Your task to perform on an android device: toggle pop-ups in chrome Image 0: 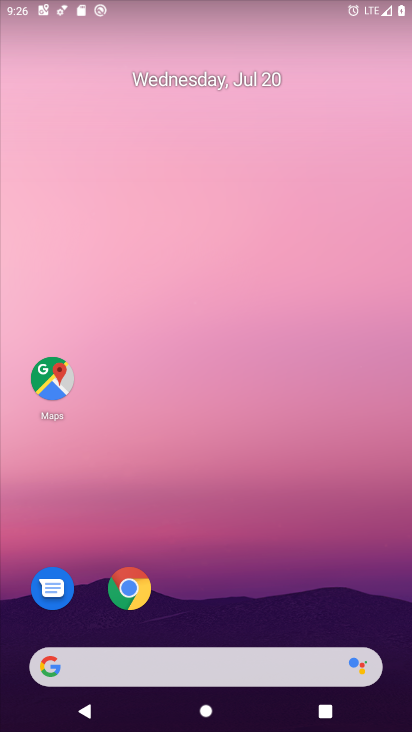
Step 0: click (125, 580)
Your task to perform on an android device: toggle pop-ups in chrome Image 1: 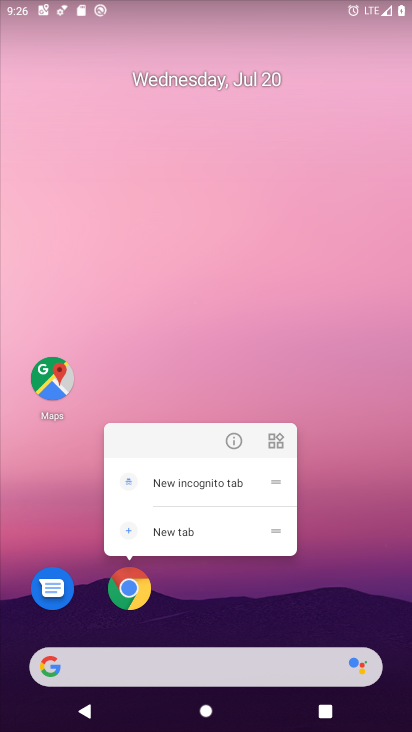
Step 1: click (237, 614)
Your task to perform on an android device: toggle pop-ups in chrome Image 2: 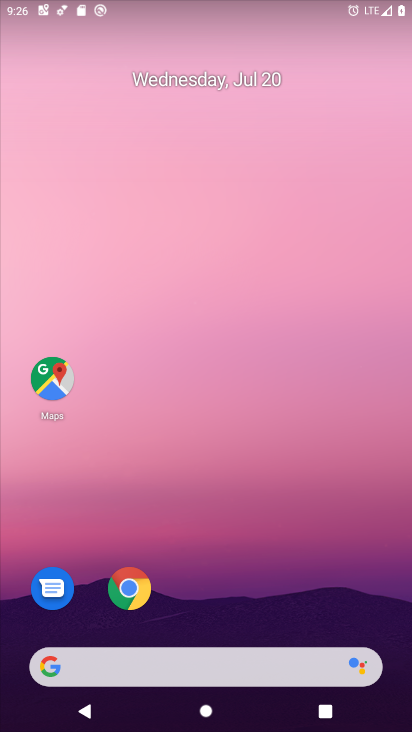
Step 2: click (125, 579)
Your task to perform on an android device: toggle pop-ups in chrome Image 3: 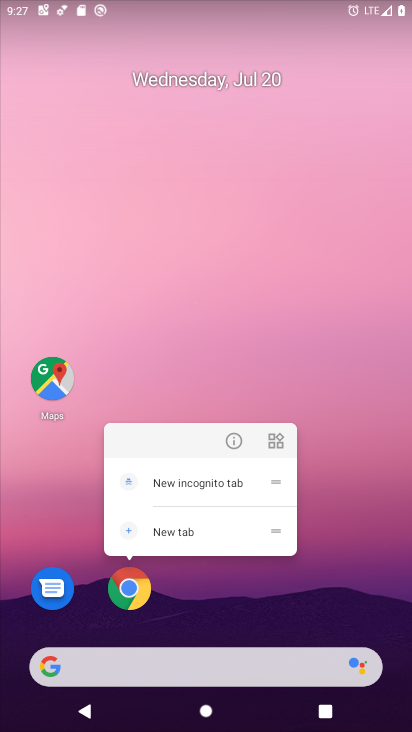
Step 3: click (127, 581)
Your task to perform on an android device: toggle pop-ups in chrome Image 4: 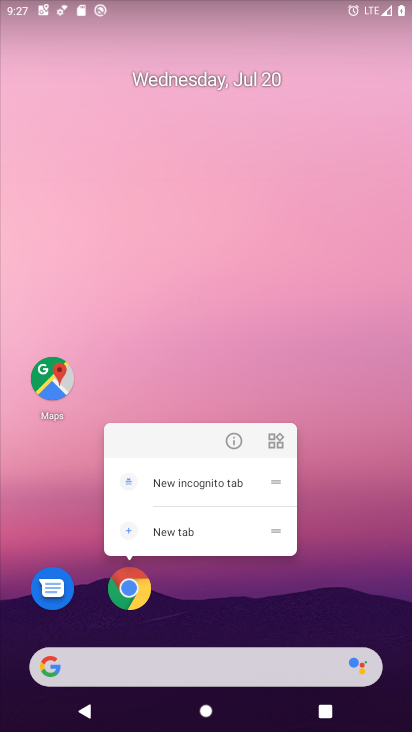
Step 4: click (124, 582)
Your task to perform on an android device: toggle pop-ups in chrome Image 5: 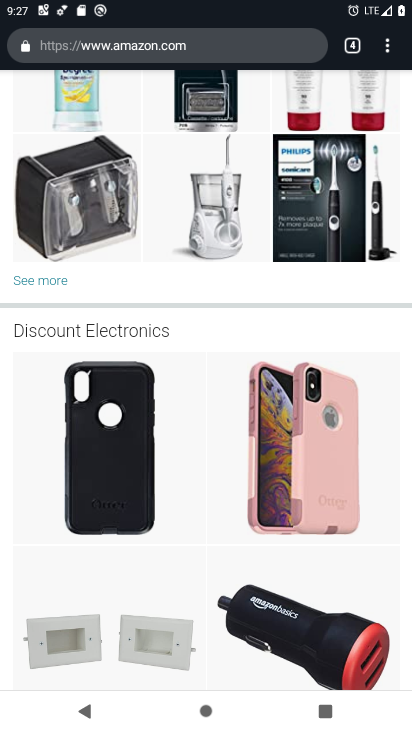
Step 5: drag from (240, 260) to (235, 505)
Your task to perform on an android device: toggle pop-ups in chrome Image 6: 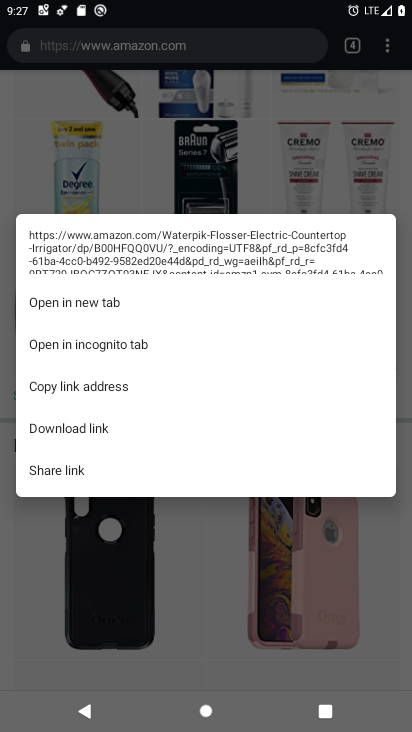
Step 6: click (309, 104)
Your task to perform on an android device: toggle pop-ups in chrome Image 7: 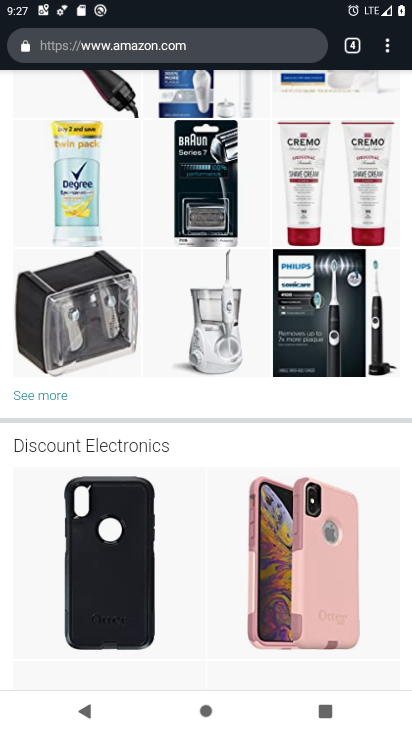
Step 7: click (385, 43)
Your task to perform on an android device: toggle pop-ups in chrome Image 8: 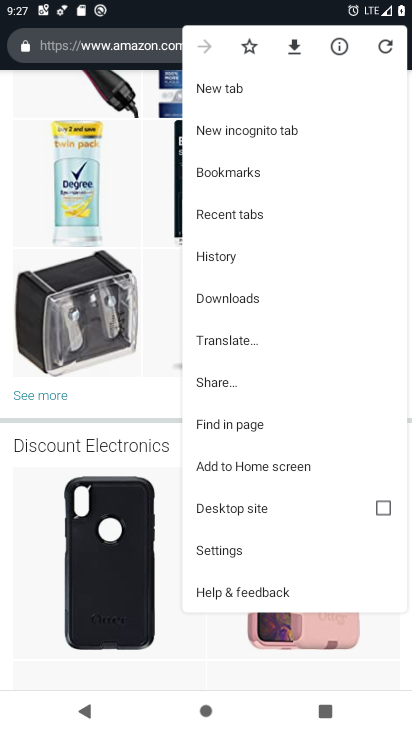
Step 8: click (241, 546)
Your task to perform on an android device: toggle pop-ups in chrome Image 9: 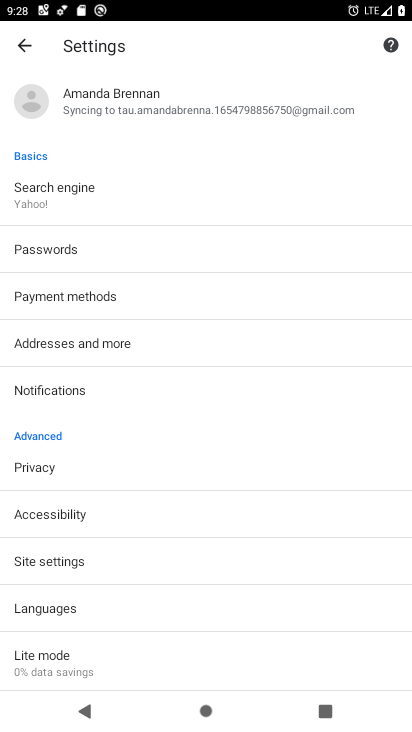
Step 9: click (98, 557)
Your task to perform on an android device: toggle pop-ups in chrome Image 10: 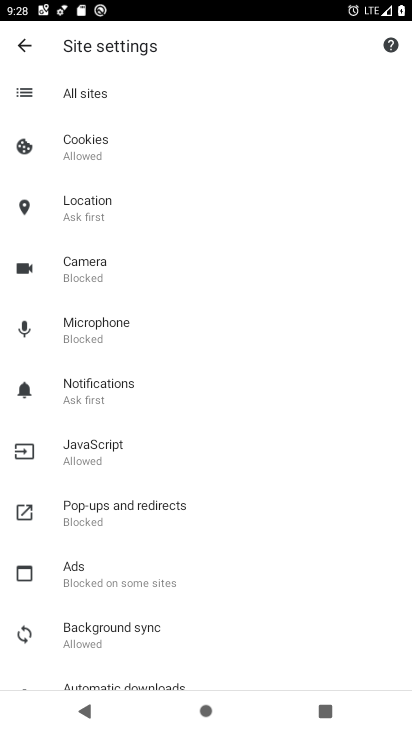
Step 10: click (120, 511)
Your task to perform on an android device: toggle pop-ups in chrome Image 11: 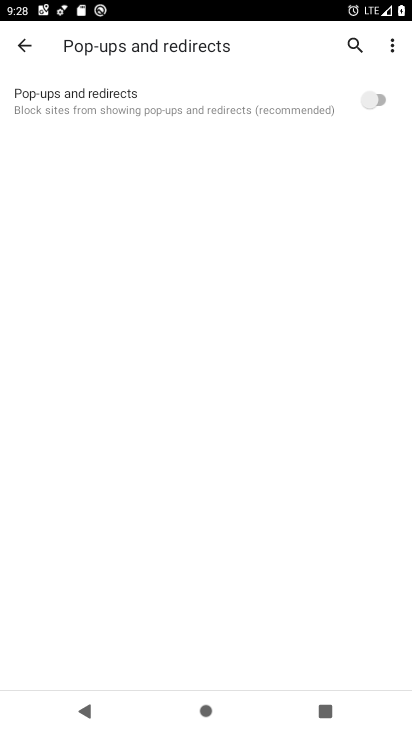
Step 11: click (369, 101)
Your task to perform on an android device: toggle pop-ups in chrome Image 12: 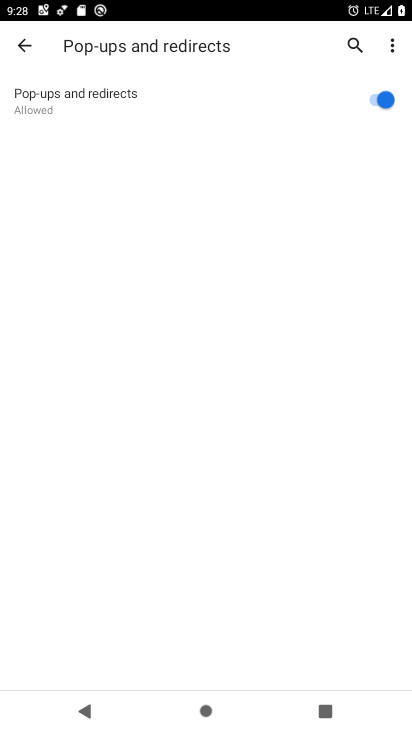
Step 12: task complete